Your task to perform on an android device: open a bookmark in the chrome app Image 0: 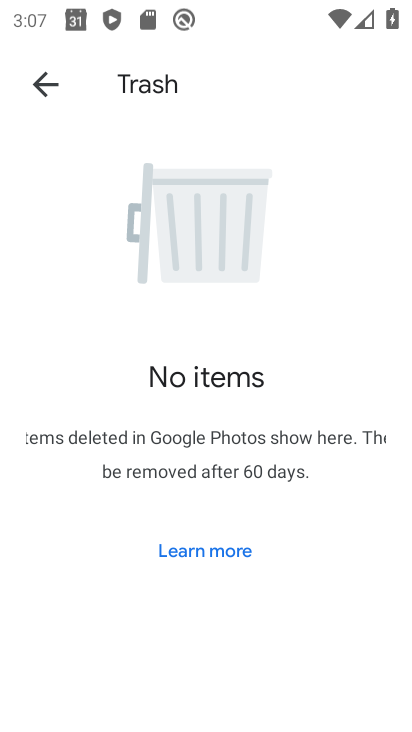
Step 0: press home button
Your task to perform on an android device: open a bookmark in the chrome app Image 1: 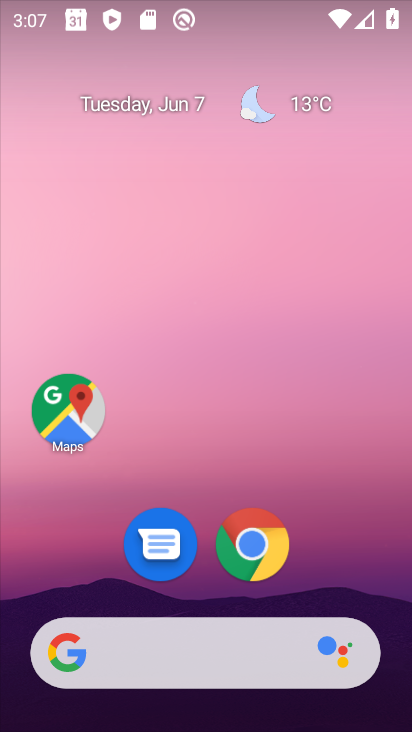
Step 1: click (250, 537)
Your task to perform on an android device: open a bookmark in the chrome app Image 2: 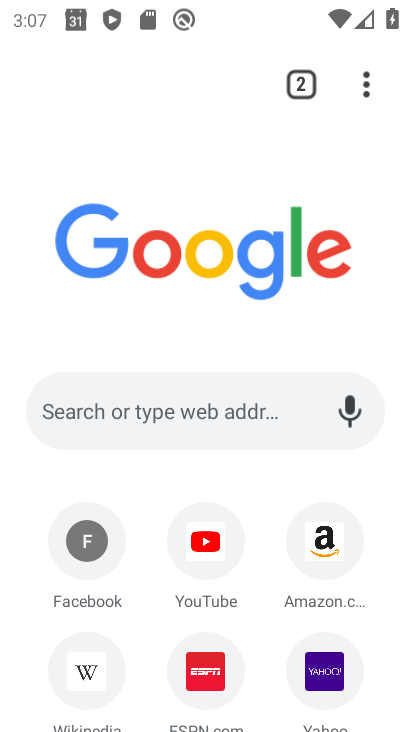
Step 2: click (365, 86)
Your task to perform on an android device: open a bookmark in the chrome app Image 3: 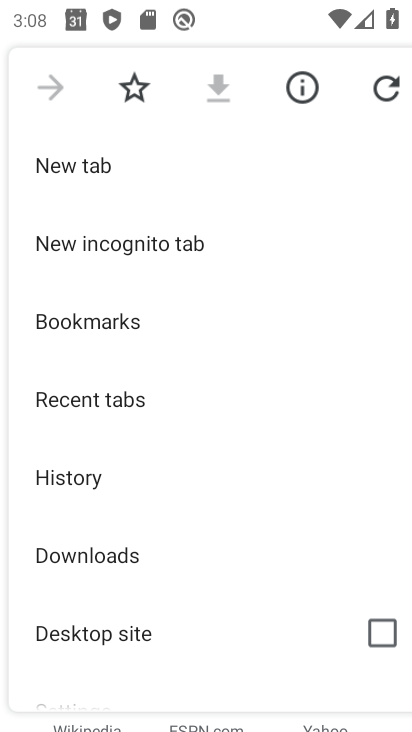
Step 3: click (155, 316)
Your task to perform on an android device: open a bookmark in the chrome app Image 4: 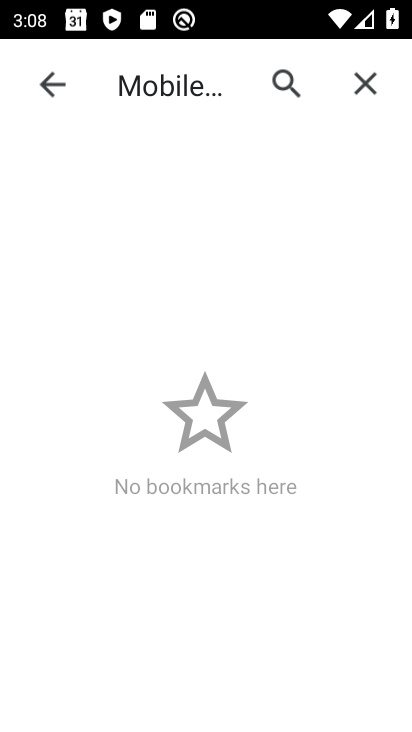
Step 4: task complete